Your task to perform on an android device: Go to network settings Image 0: 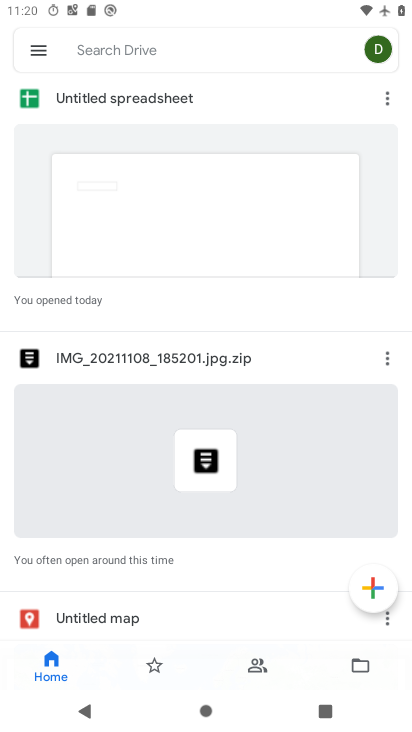
Step 0: press home button
Your task to perform on an android device: Go to network settings Image 1: 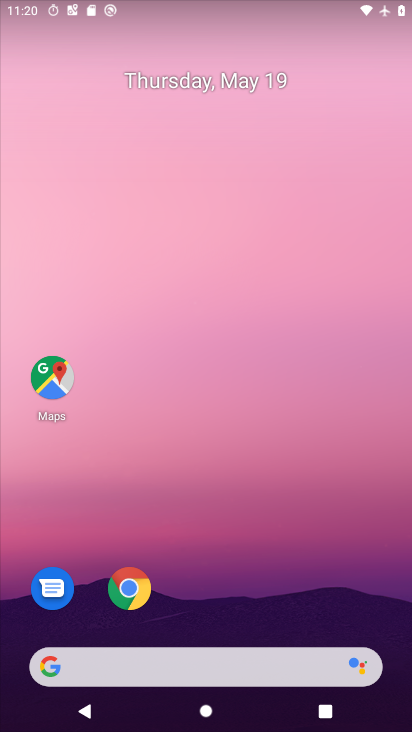
Step 1: drag from (160, 661) to (307, 161)
Your task to perform on an android device: Go to network settings Image 2: 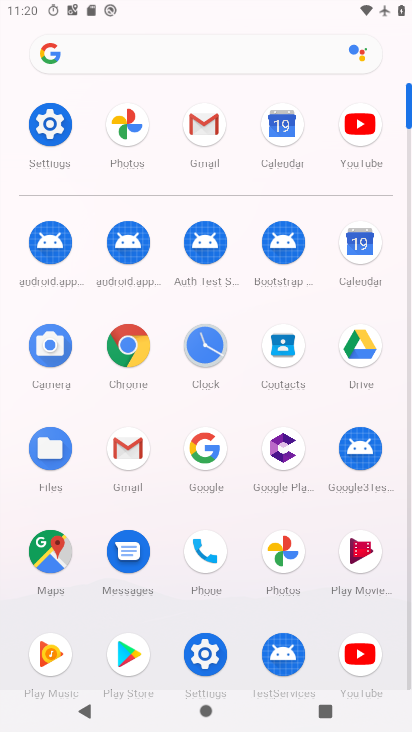
Step 2: click (58, 125)
Your task to perform on an android device: Go to network settings Image 3: 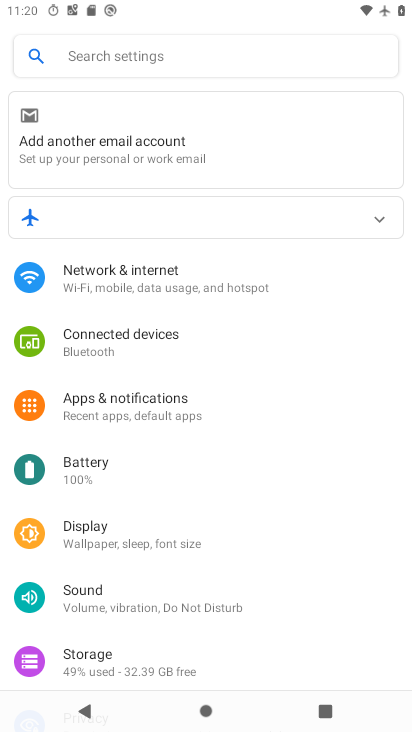
Step 3: click (147, 280)
Your task to perform on an android device: Go to network settings Image 4: 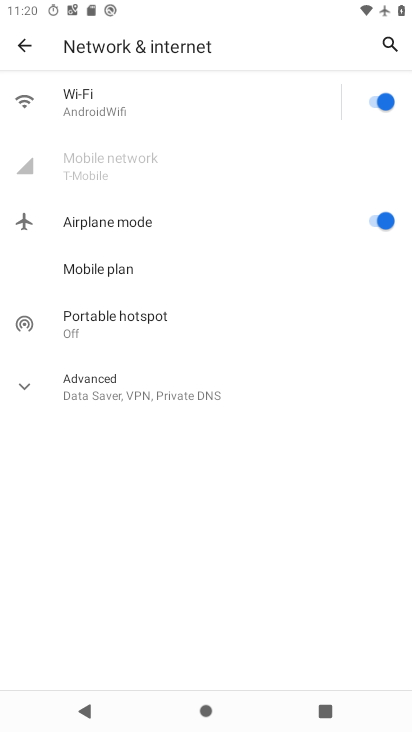
Step 4: task complete